Your task to perform on an android device: change the clock display to analog Image 0: 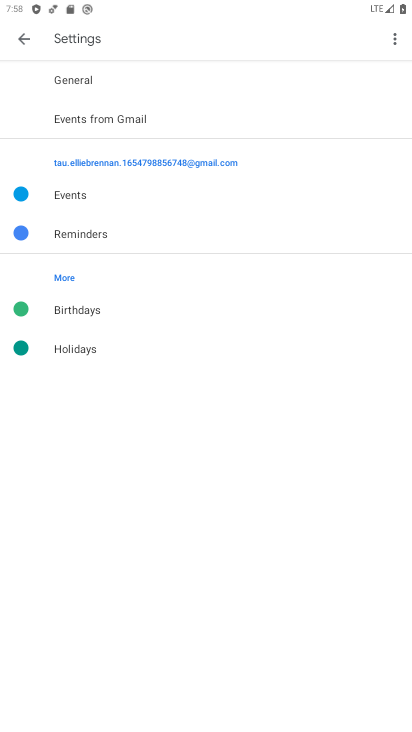
Step 0: press home button
Your task to perform on an android device: change the clock display to analog Image 1: 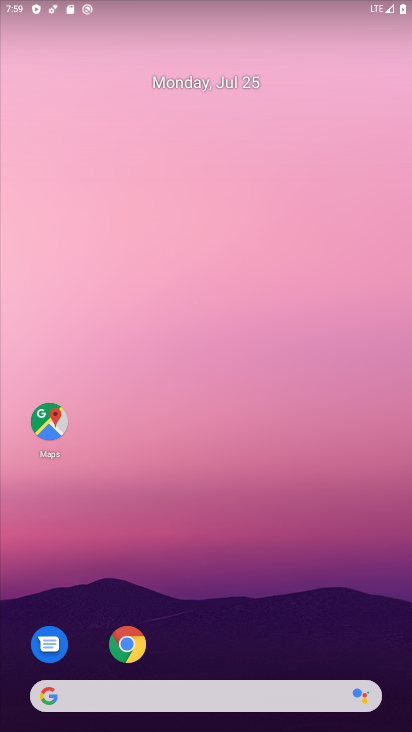
Step 1: drag from (198, 596) to (178, 126)
Your task to perform on an android device: change the clock display to analog Image 2: 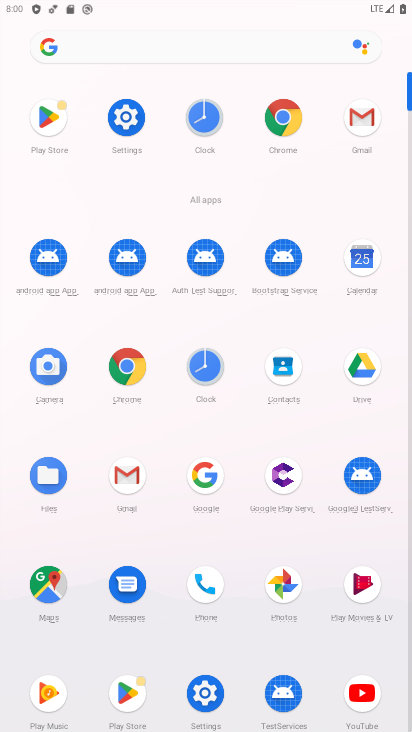
Step 2: click (208, 374)
Your task to perform on an android device: change the clock display to analog Image 3: 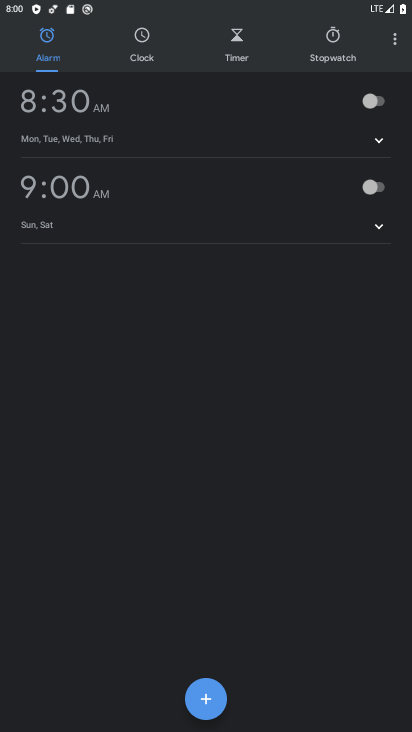
Step 3: click (398, 40)
Your task to perform on an android device: change the clock display to analog Image 4: 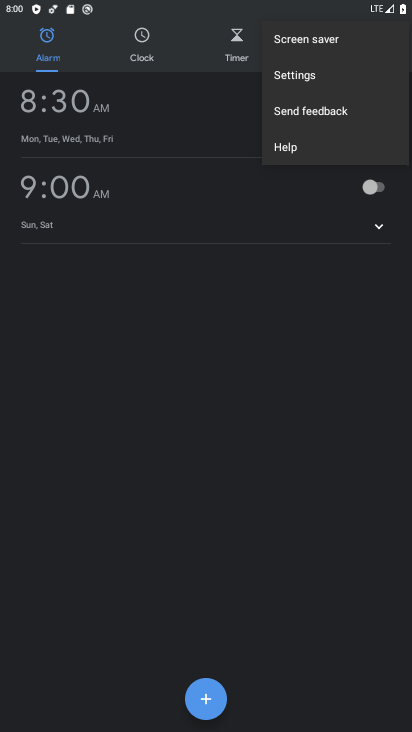
Step 4: click (296, 75)
Your task to perform on an android device: change the clock display to analog Image 5: 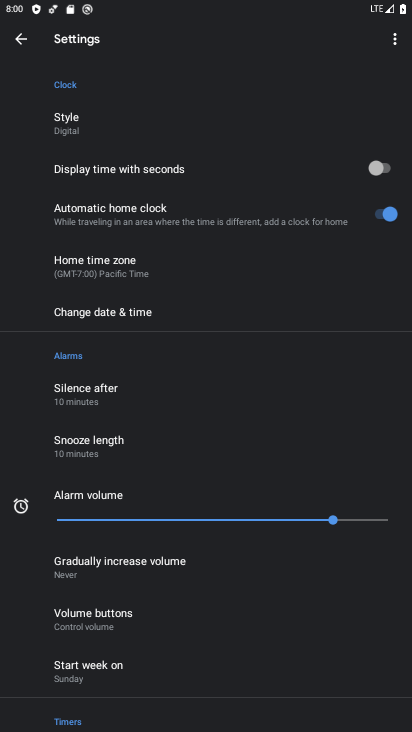
Step 5: click (50, 123)
Your task to perform on an android device: change the clock display to analog Image 6: 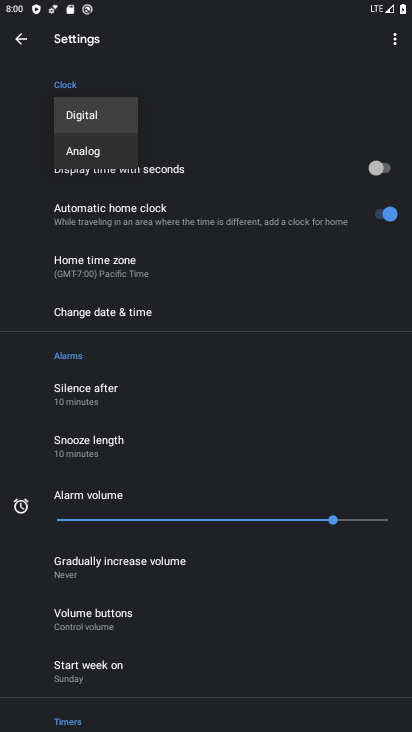
Step 6: click (72, 149)
Your task to perform on an android device: change the clock display to analog Image 7: 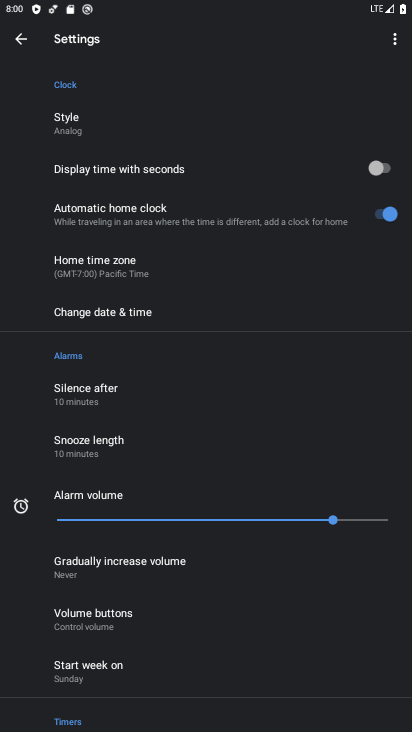
Step 7: task complete